Your task to perform on an android device: Search for seafood restaurants on Google Maps Image 0: 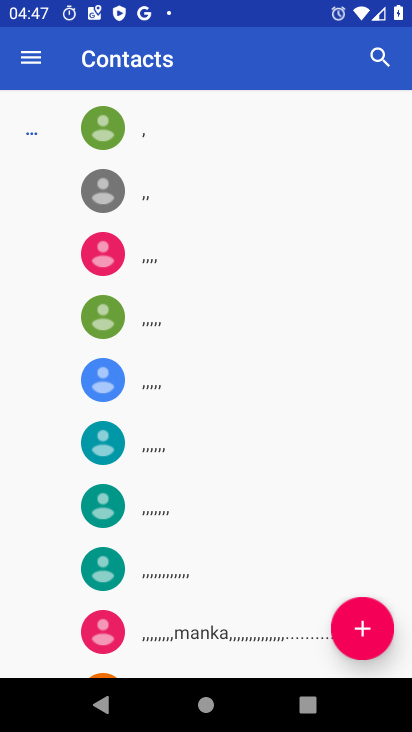
Step 0: press home button
Your task to perform on an android device: Search for seafood restaurants on Google Maps Image 1: 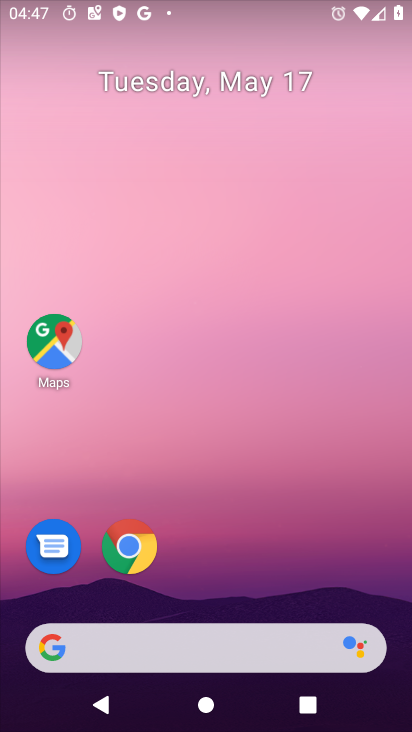
Step 1: click (48, 356)
Your task to perform on an android device: Search for seafood restaurants on Google Maps Image 2: 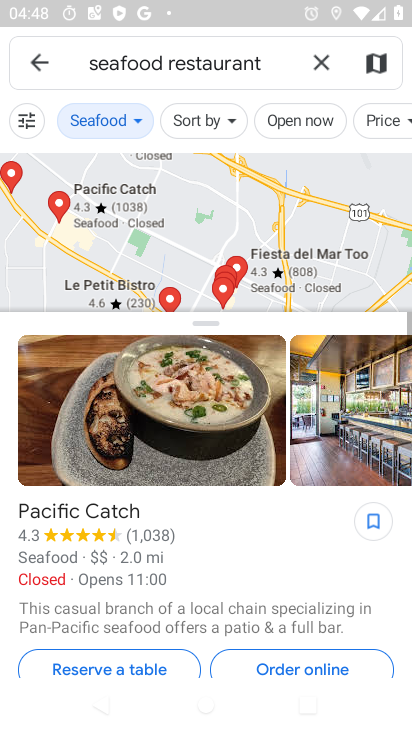
Step 2: click (286, 124)
Your task to perform on an android device: Search for seafood restaurants on Google Maps Image 3: 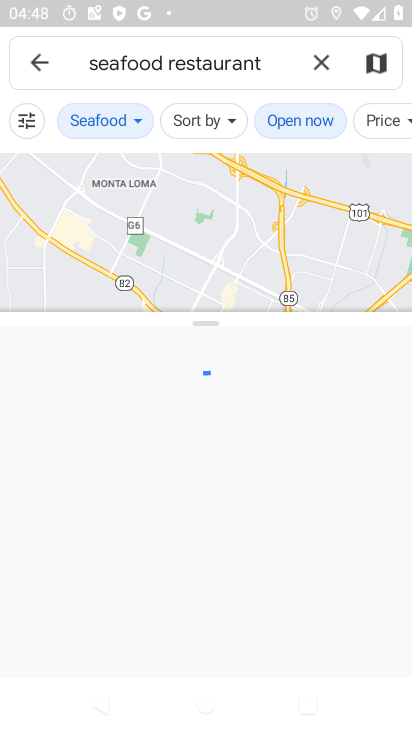
Step 3: click (318, 62)
Your task to perform on an android device: Search for seafood restaurants on Google Maps Image 4: 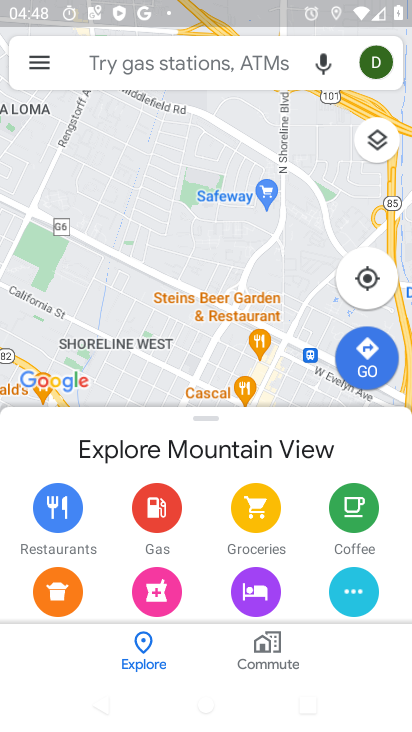
Step 4: type "seafood restaurants"
Your task to perform on an android device: Search for seafood restaurants on Google Maps Image 5: 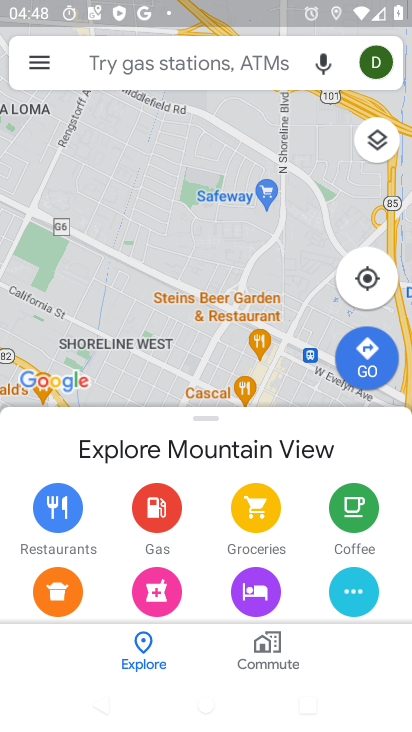
Step 5: click (84, 63)
Your task to perform on an android device: Search for seafood restaurants on Google Maps Image 6: 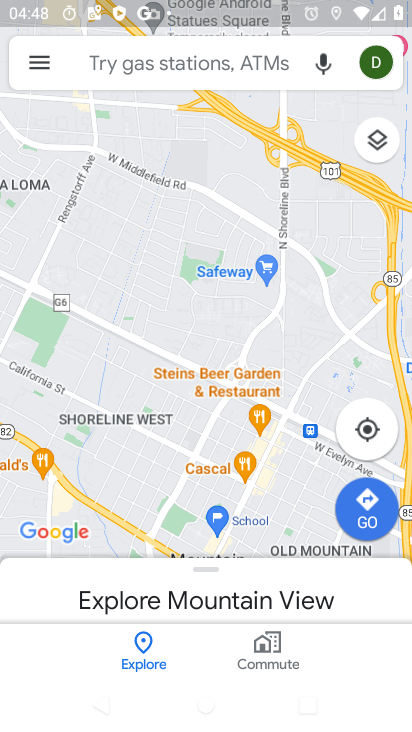
Step 6: click (93, 63)
Your task to perform on an android device: Search for seafood restaurants on Google Maps Image 7: 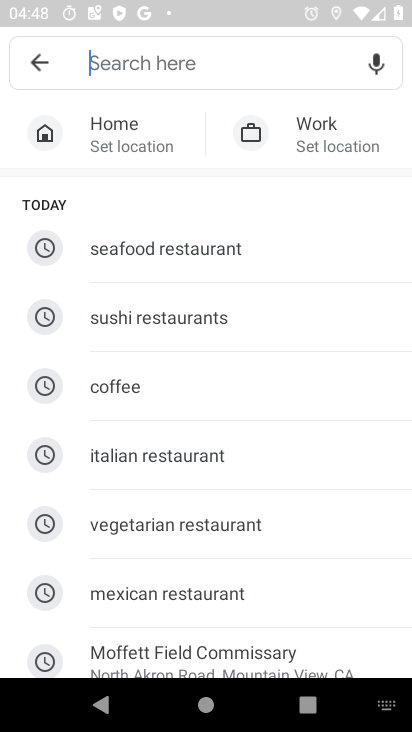
Step 7: type "seafood restaurants"
Your task to perform on an android device: Search for seafood restaurants on Google Maps Image 8: 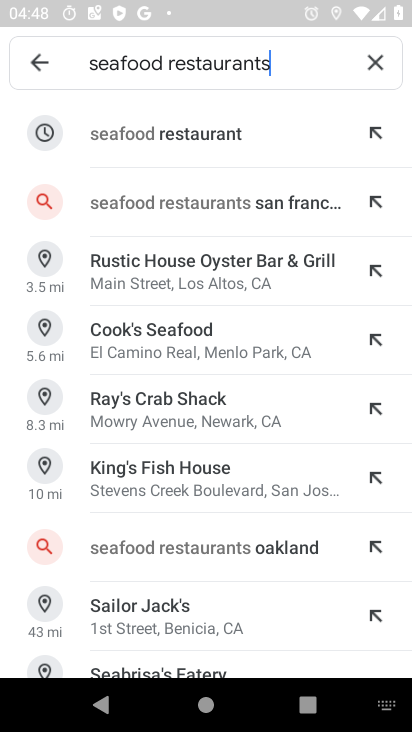
Step 8: click (163, 135)
Your task to perform on an android device: Search for seafood restaurants on Google Maps Image 9: 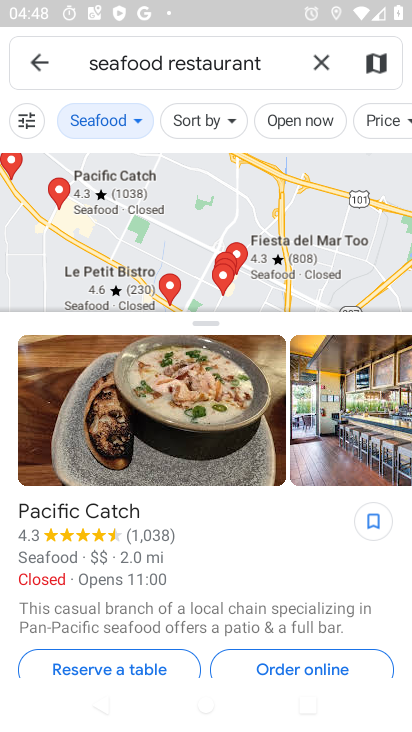
Step 9: task complete